Your task to perform on an android device: read, delete, or share a saved page in the chrome app Image 0: 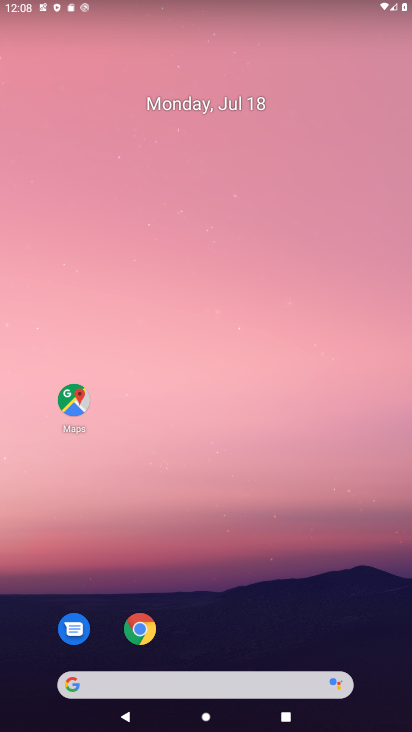
Step 0: press home button
Your task to perform on an android device: read, delete, or share a saved page in the chrome app Image 1: 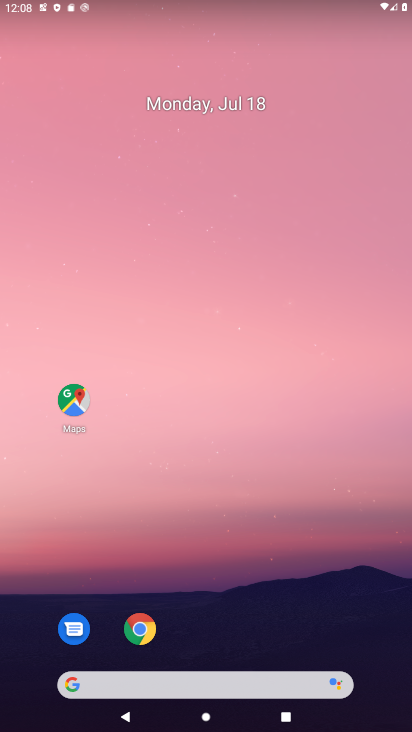
Step 1: click (137, 625)
Your task to perform on an android device: read, delete, or share a saved page in the chrome app Image 2: 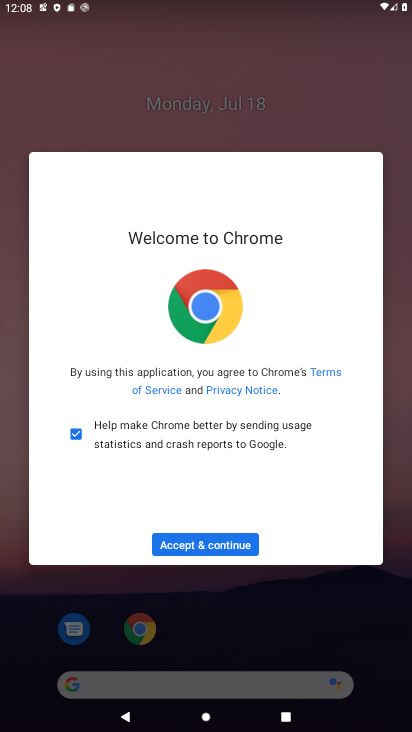
Step 2: click (197, 541)
Your task to perform on an android device: read, delete, or share a saved page in the chrome app Image 3: 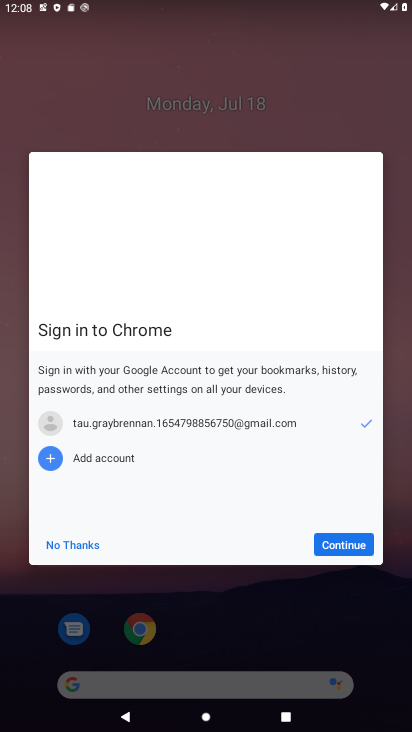
Step 3: click (347, 541)
Your task to perform on an android device: read, delete, or share a saved page in the chrome app Image 4: 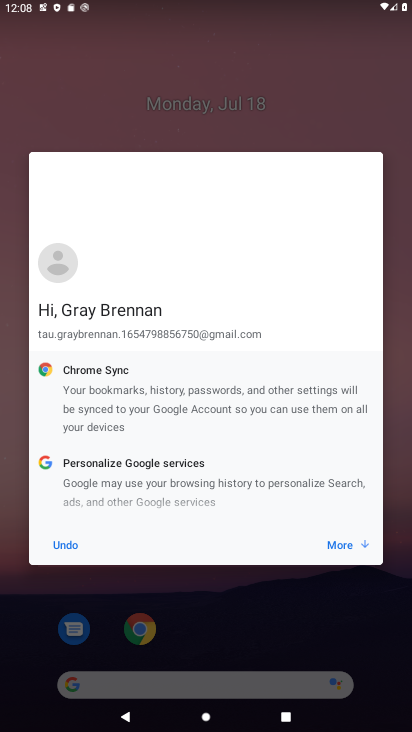
Step 4: click (347, 541)
Your task to perform on an android device: read, delete, or share a saved page in the chrome app Image 5: 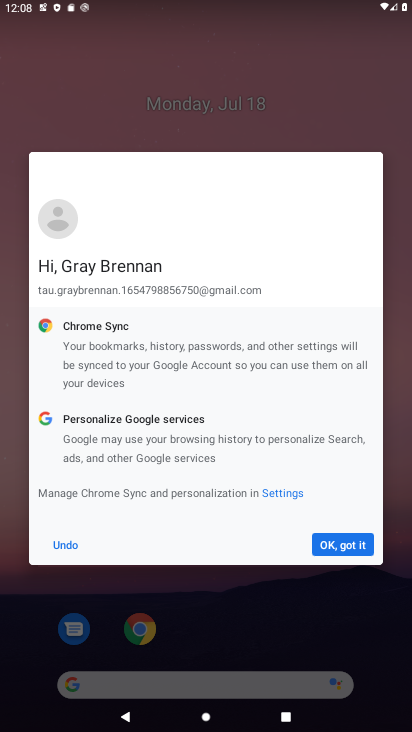
Step 5: click (340, 542)
Your task to perform on an android device: read, delete, or share a saved page in the chrome app Image 6: 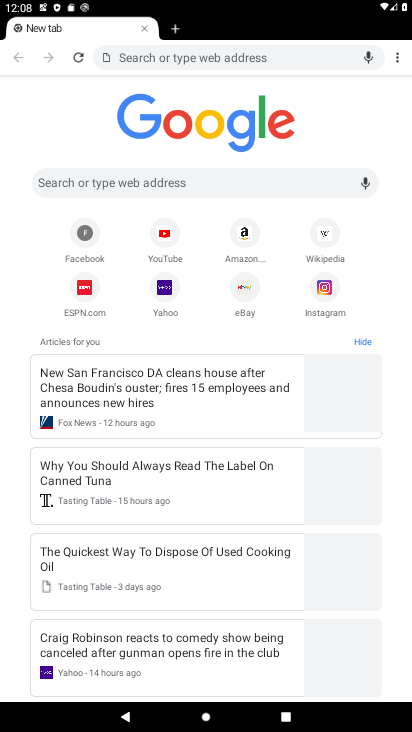
Step 6: click (398, 52)
Your task to perform on an android device: read, delete, or share a saved page in the chrome app Image 7: 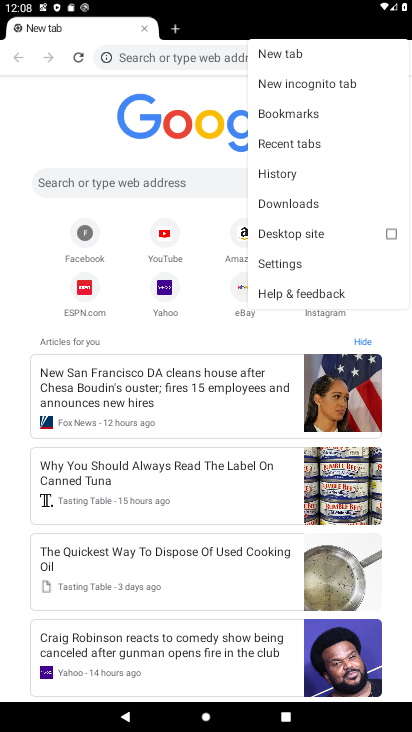
Step 7: click (323, 204)
Your task to perform on an android device: read, delete, or share a saved page in the chrome app Image 8: 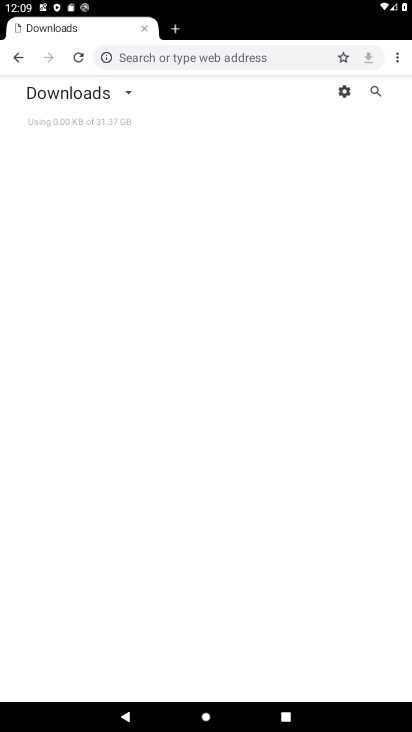
Step 8: task complete